Your task to perform on an android device: Empty the shopping cart on newegg.com. Search for "logitech g903" on newegg.com, select the first entry, and add it to the cart. Image 0: 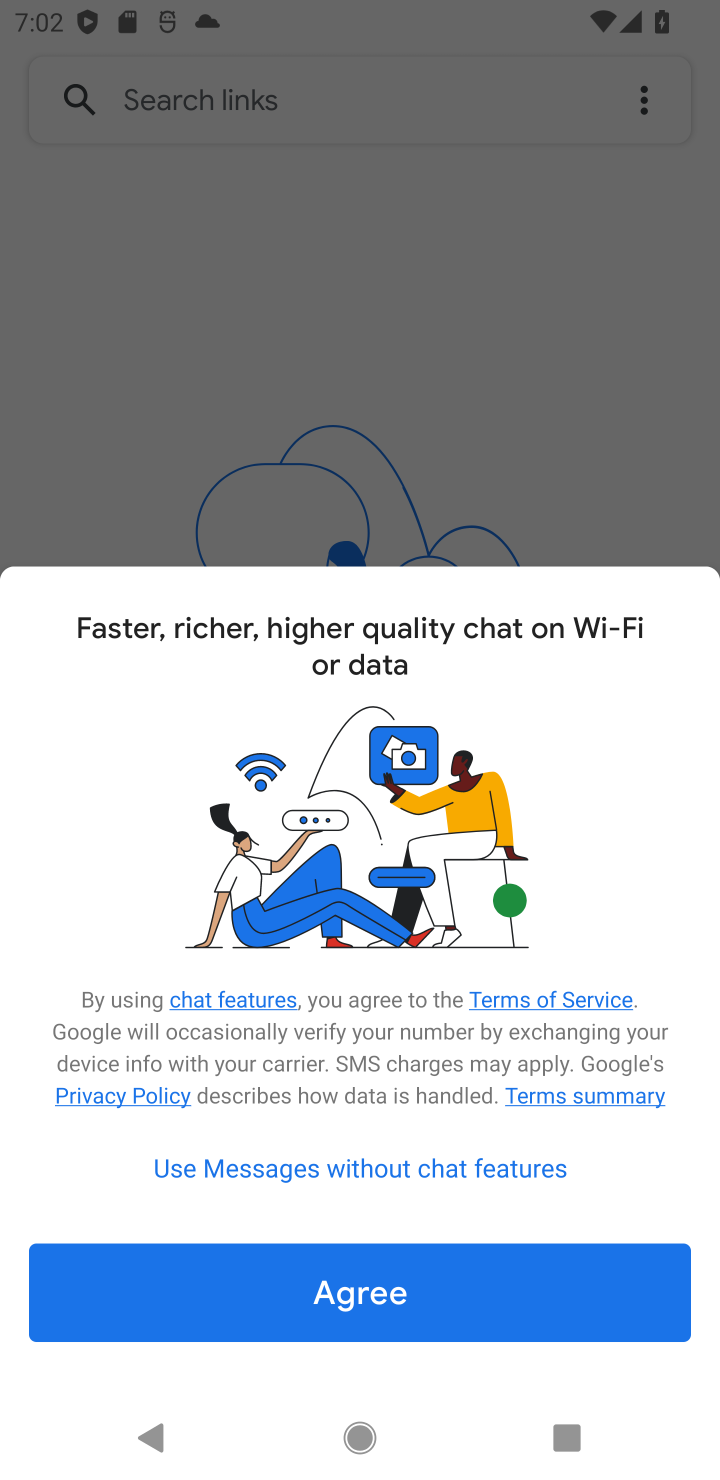
Step 0: press home button
Your task to perform on an android device: Empty the shopping cart on newegg.com. Search for "logitech g903" on newegg.com, select the first entry, and add it to the cart. Image 1: 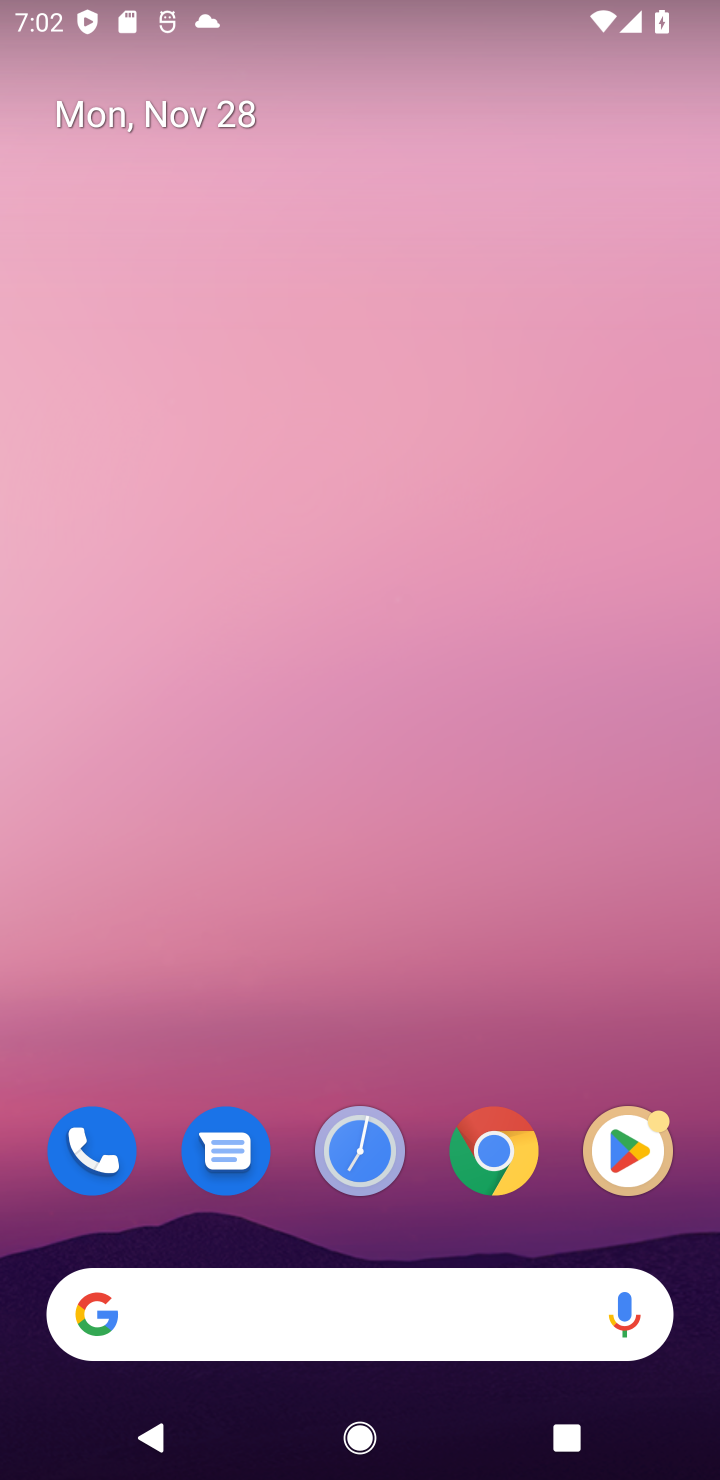
Step 1: click (382, 1289)
Your task to perform on an android device: Empty the shopping cart on newegg.com. Search for "logitech g903" on newegg.com, select the first entry, and add it to the cart. Image 2: 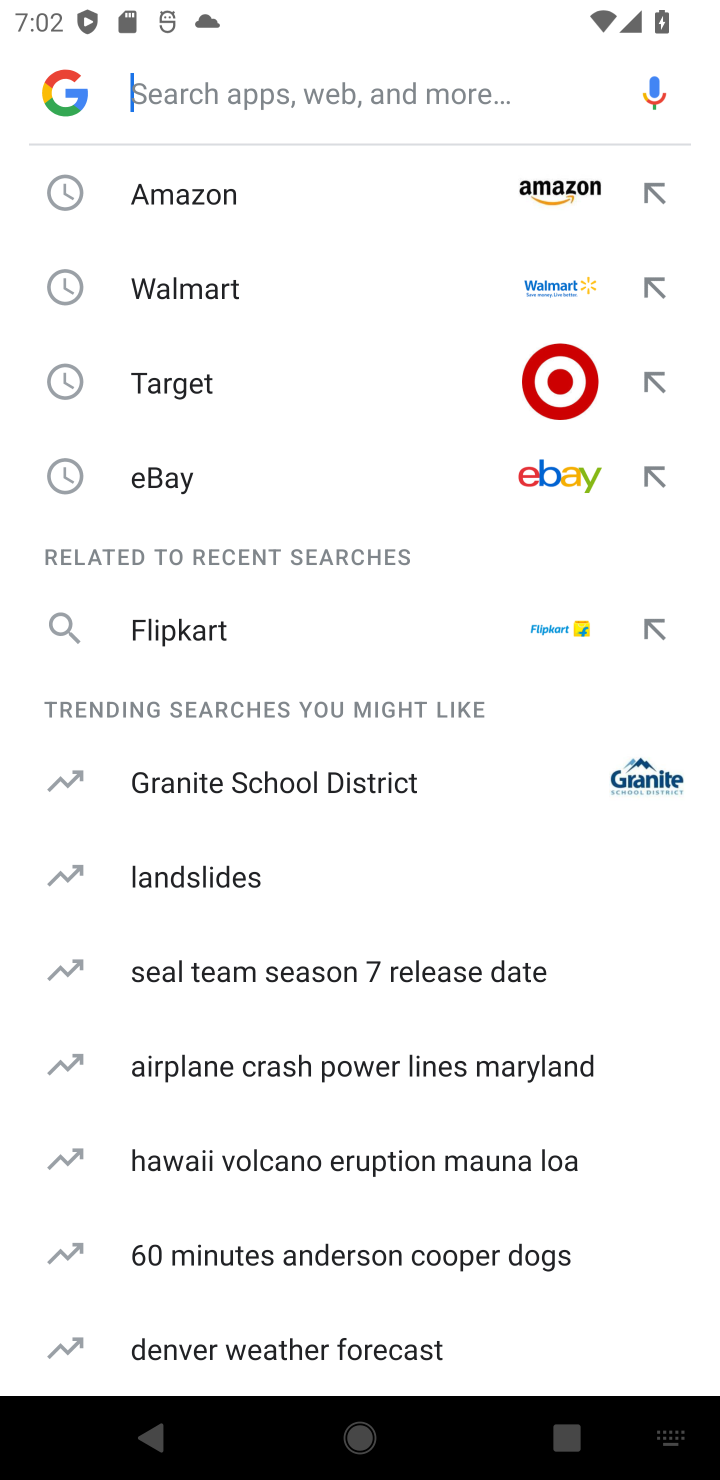
Step 2: type "newegg.com"
Your task to perform on an android device: Empty the shopping cart on newegg.com. Search for "logitech g903" on newegg.com, select the first entry, and add it to the cart. Image 3: 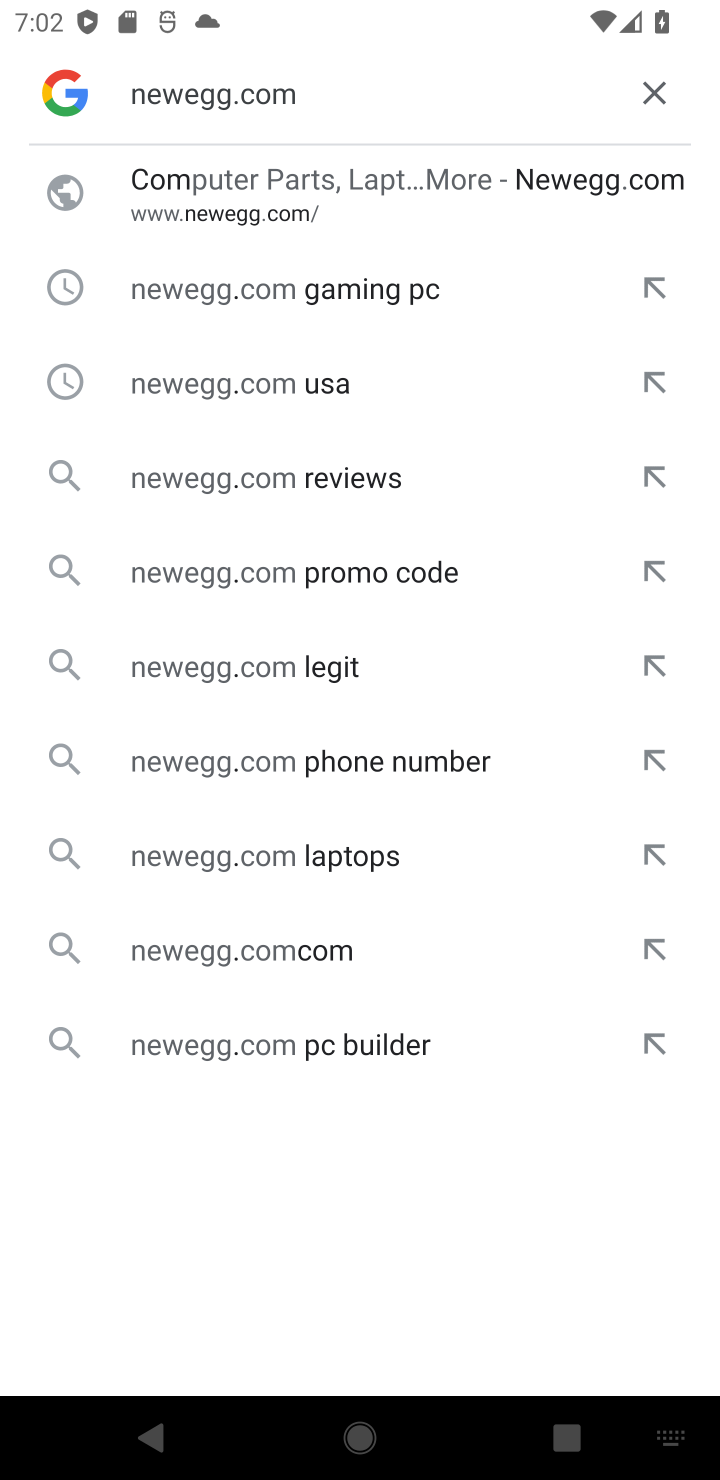
Step 3: click (191, 181)
Your task to perform on an android device: Empty the shopping cart on newegg.com. Search for "logitech g903" on newegg.com, select the first entry, and add it to the cart. Image 4: 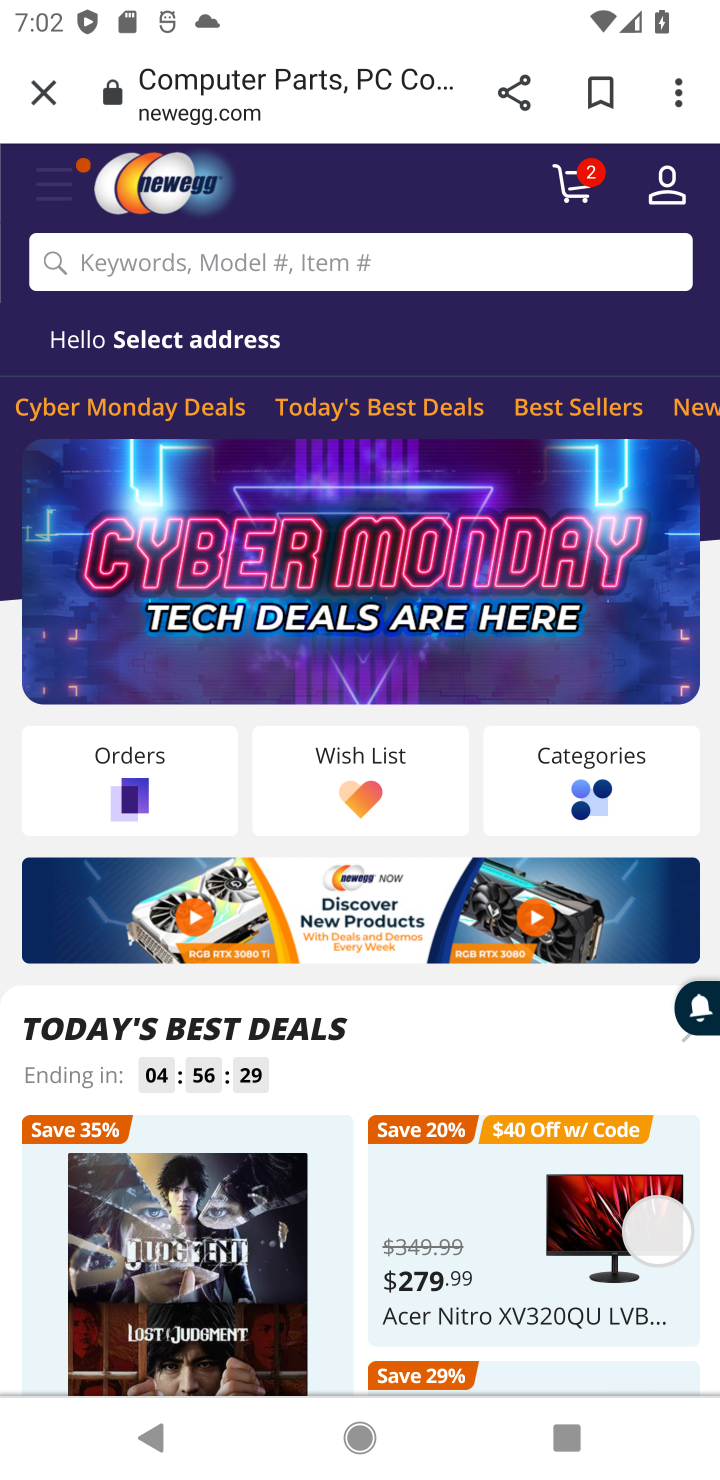
Step 4: click (366, 267)
Your task to perform on an android device: Empty the shopping cart on newegg.com. Search for "logitech g903" on newegg.com, select the first entry, and add it to the cart. Image 5: 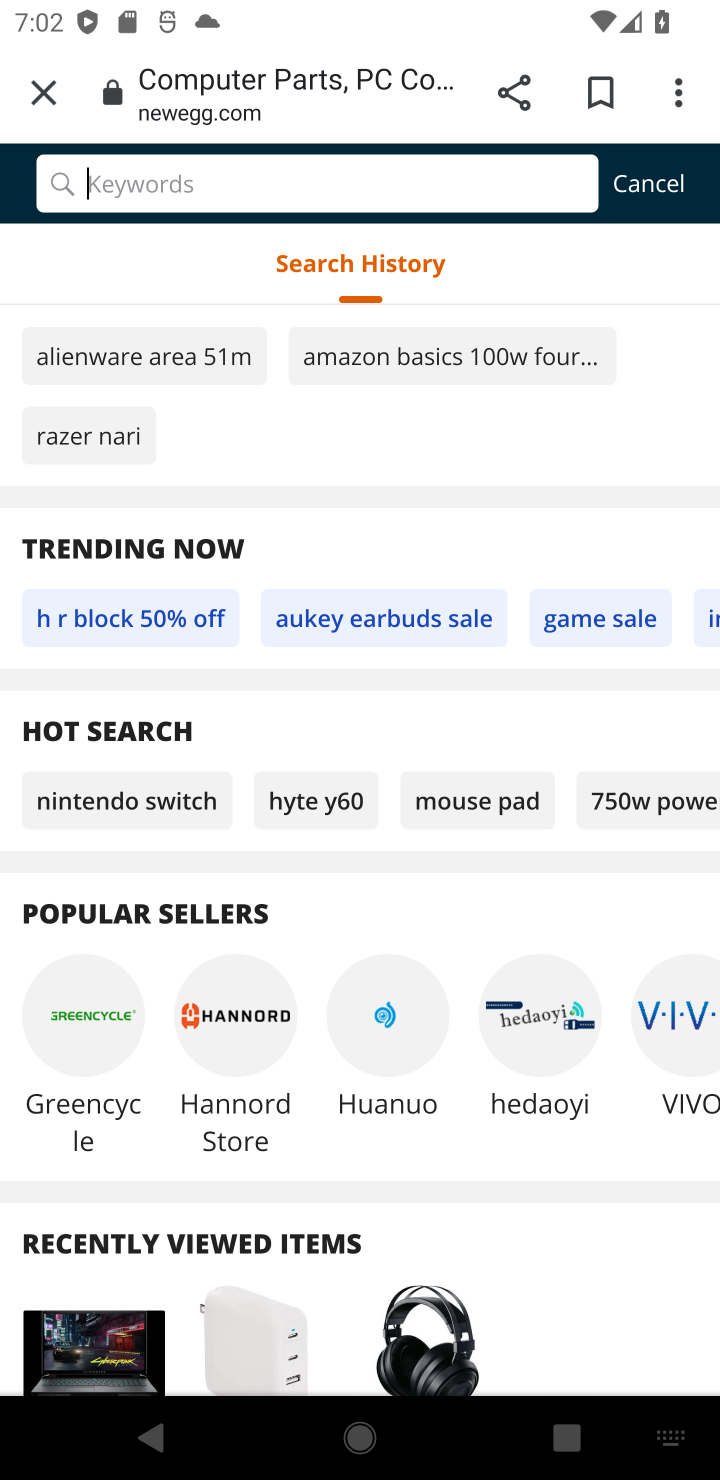
Step 5: type "logitech g903"
Your task to perform on an android device: Empty the shopping cart on newegg.com. Search for "logitech g903" on newegg.com, select the first entry, and add it to the cart. Image 6: 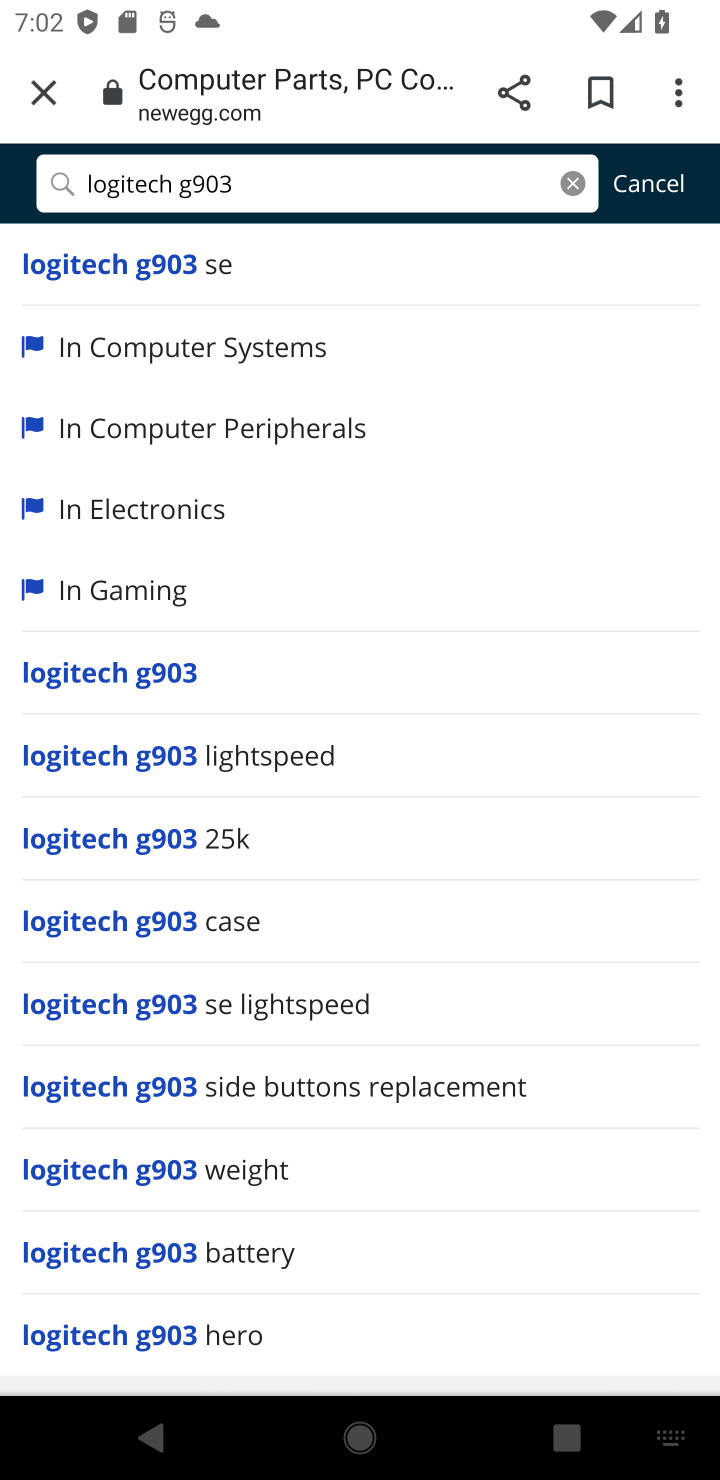
Step 6: click (284, 266)
Your task to perform on an android device: Empty the shopping cart on newegg.com. Search for "logitech g903" on newegg.com, select the first entry, and add it to the cart. Image 7: 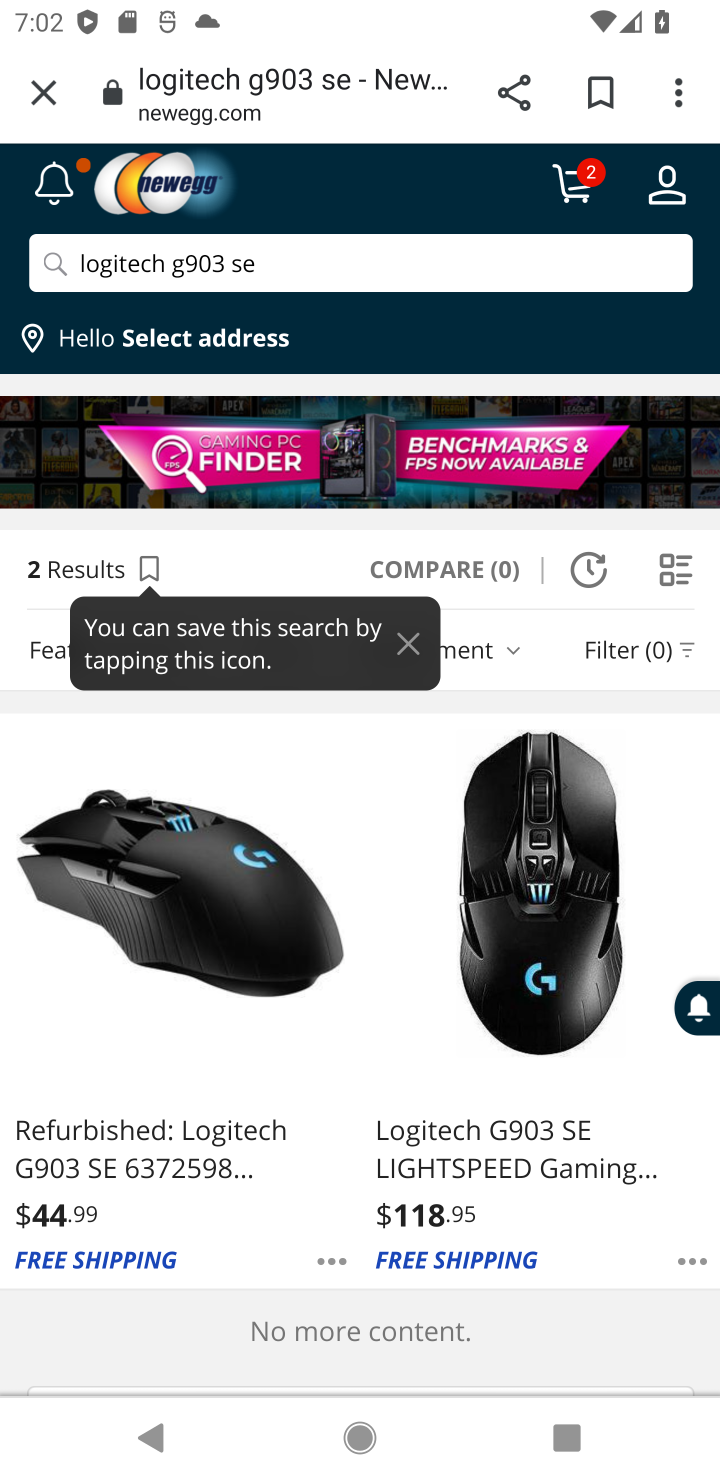
Step 7: click (169, 968)
Your task to perform on an android device: Empty the shopping cart on newegg.com. Search for "logitech g903" on newegg.com, select the first entry, and add it to the cart. Image 8: 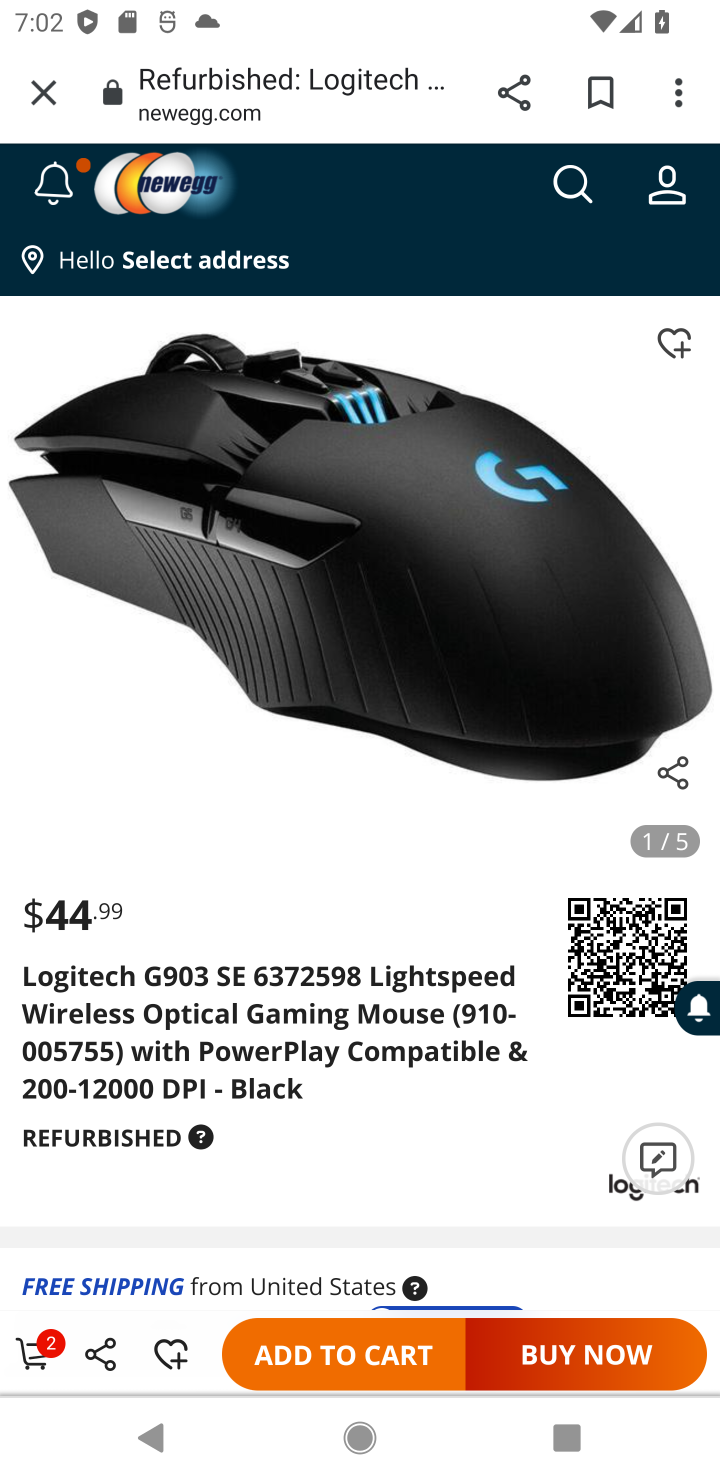
Step 8: click (360, 1359)
Your task to perform on an android device: Empty the shopping cart on newegg.com. Search for "logitech g903" on newegg.com, select the first entry, and add it to the cart. Image 9: 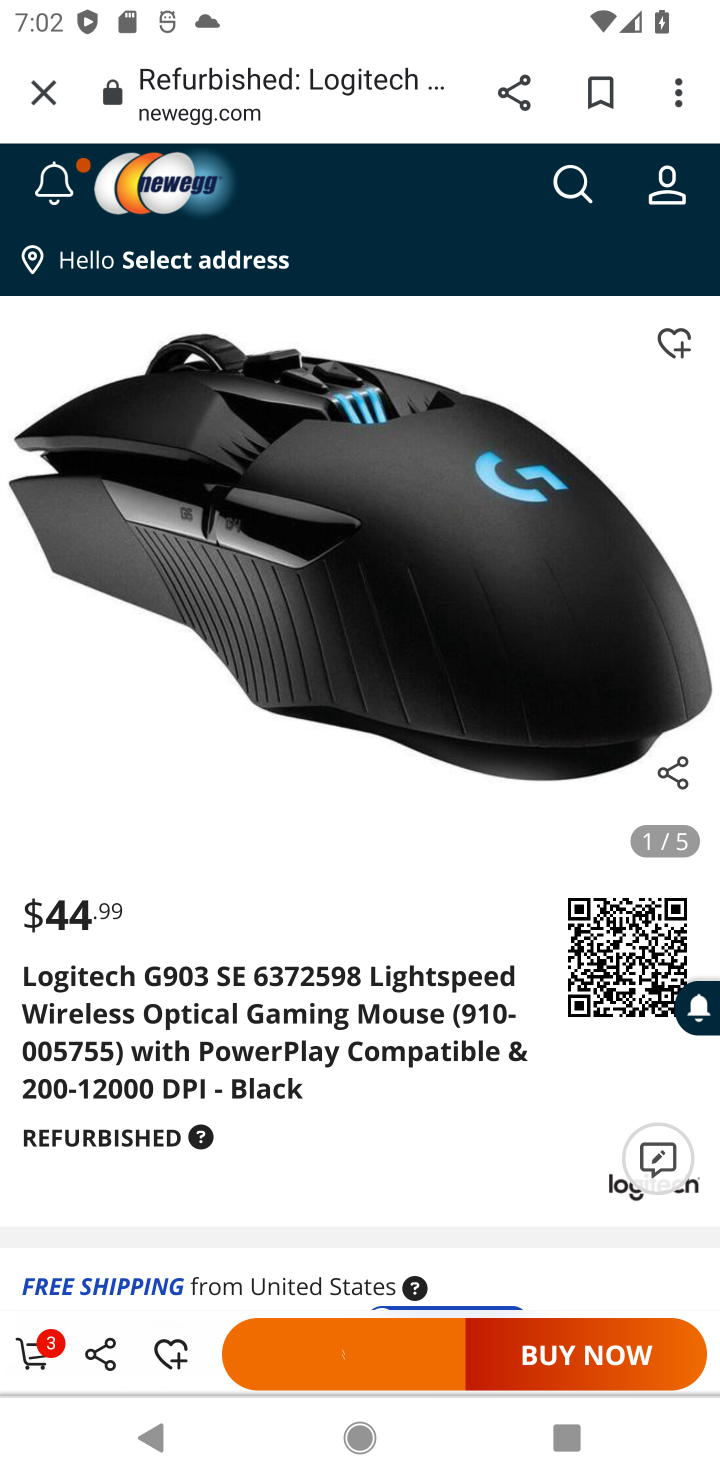
Step 9: task complete